Your task to perform on an android device: Open the phone app and click the voicemail tab. Image 0: 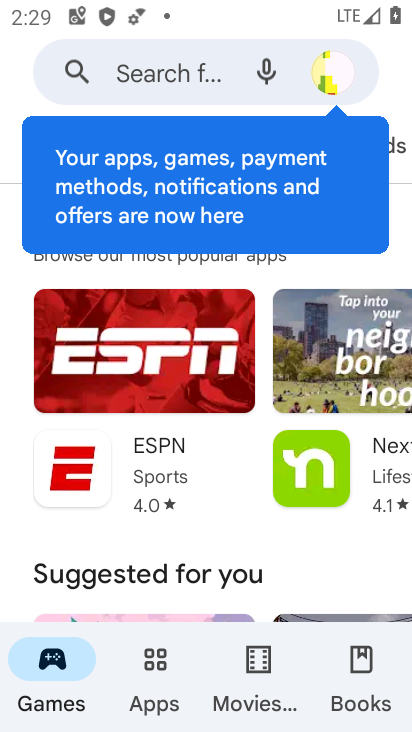
Step 0: press home button
Your task to perform on an android device: Open the phone app and click the voicemail tab. Image 1: 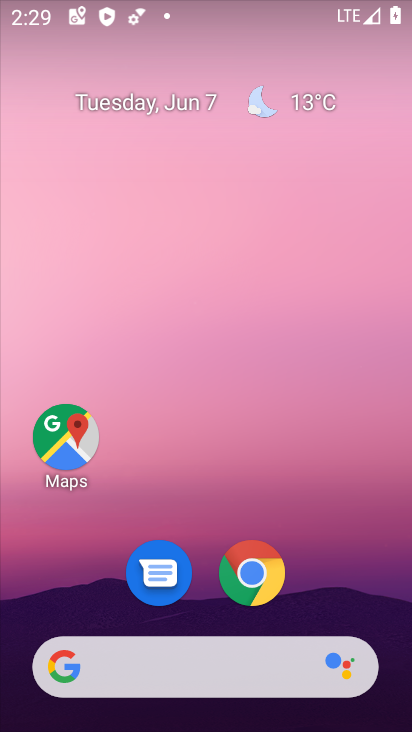
Step 1: drag from (336, 515) to (402, 0)
Your task to perform on an android device: Open the phone app and click the voicemail tab. Image 2: 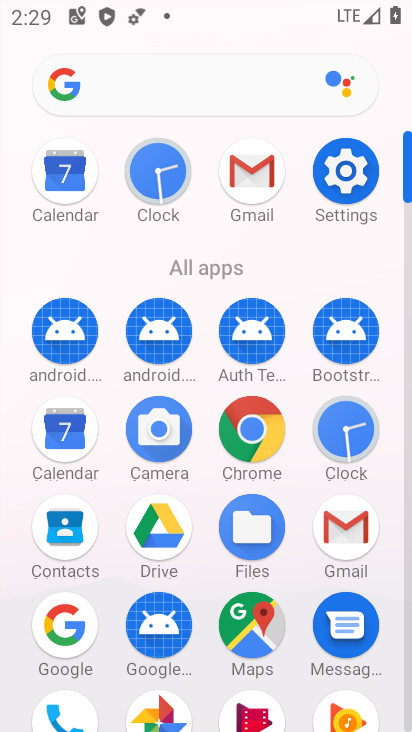
Step 2: drag from (115, 662) to (111, 257)
Your task to perform on an android device: Open the phone app and click the voicemail tab. Image 3: 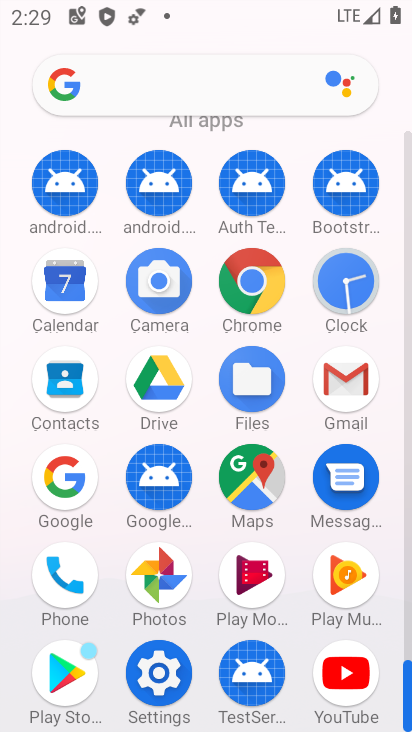
Step 3: click (55, 577)
Your task to perform on an android device: Open the phone app and click the voicemail tab. Image 4: 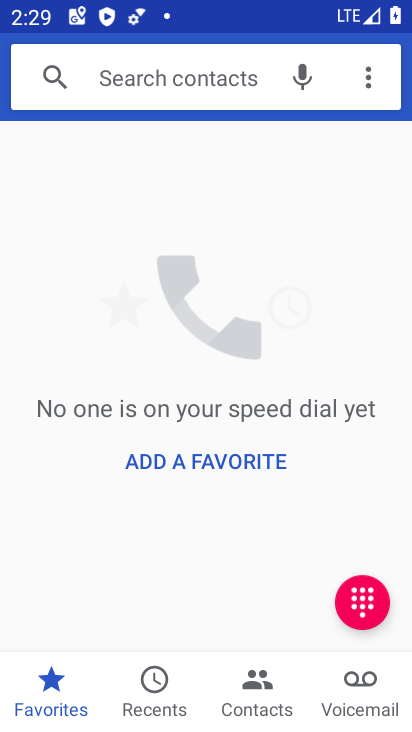
Step 4: click (337, 696)
Your task to perform on an android device: Open the phone app and click the voicemail tab. Image 5: 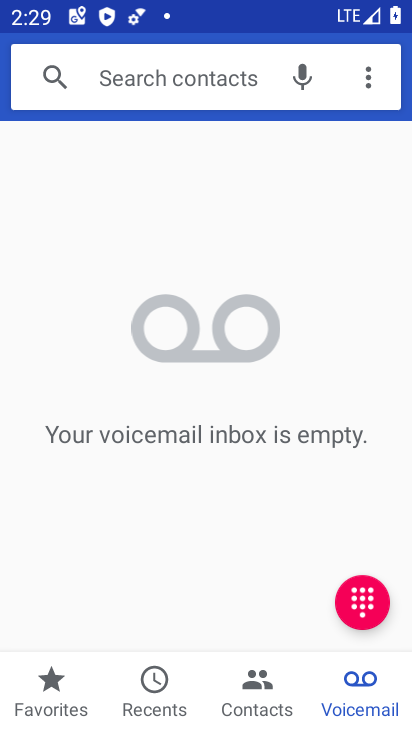
Step 5: task complete